Your task to perform on an android device: Is it going to rain tomorrow? Image 0: 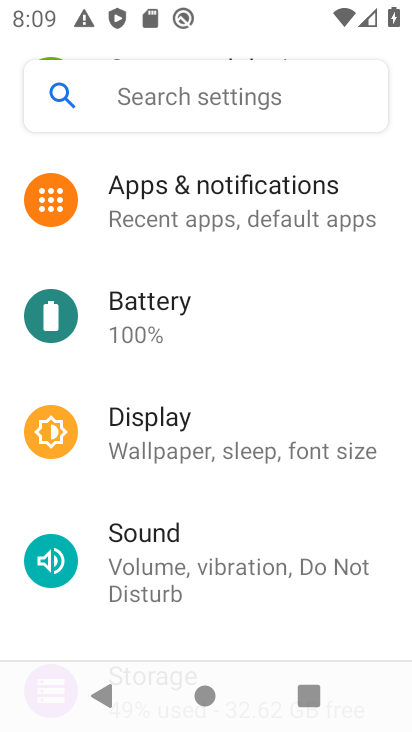
Step 0: press home button
Your task to perform on an android device: Is it going to rain tomorrow? Image 1: 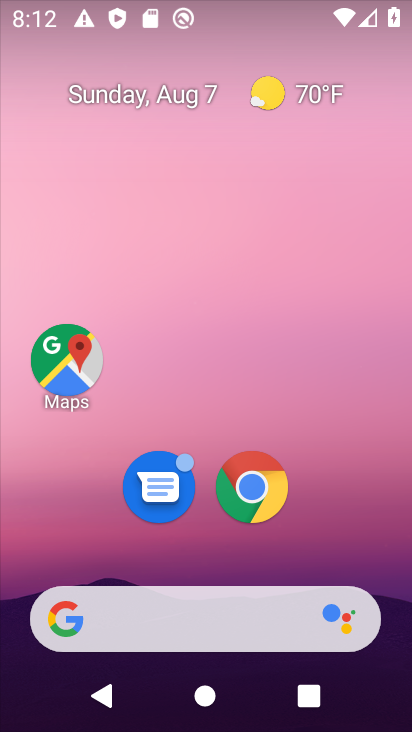
Step 1: drag from (9, 264) to (408, 249)
Your task to perform on an android device: Is it going to rain tomorrow? Image 2: 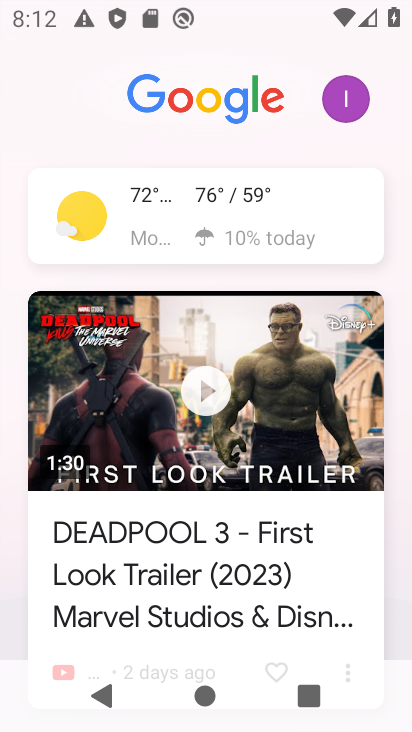
Step 2: click (223, 197)
Your task to perform on an android device: Is it going to rain tomorrow? Image 3: 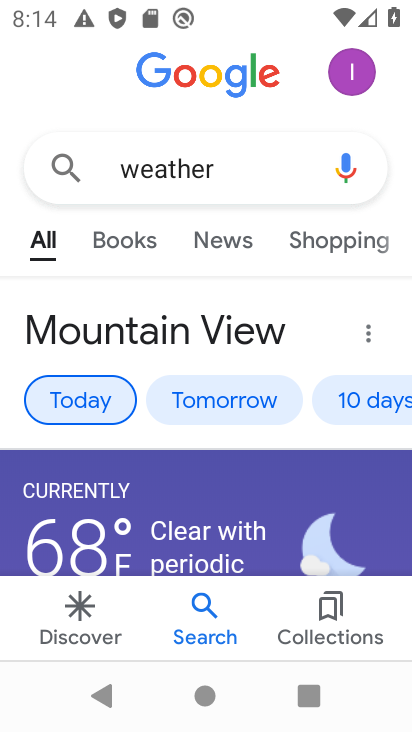
Step 3: click (241, 391)
Your task to perform on an android device: Is it going to rain tomorrow? Image 4: 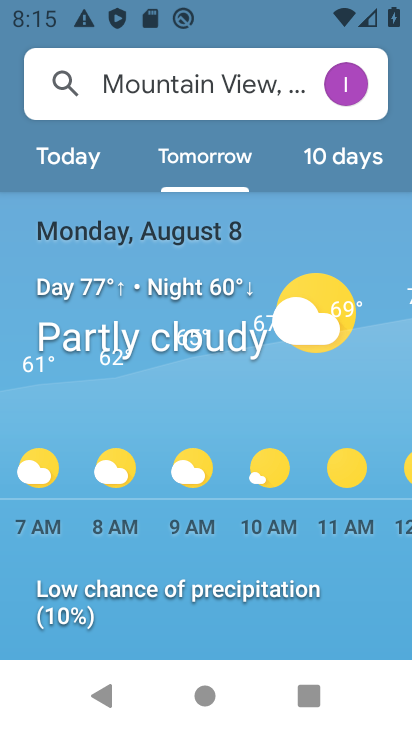
Step 4: task complete